Your task to perform on an android device: Open battery settings Image 0: 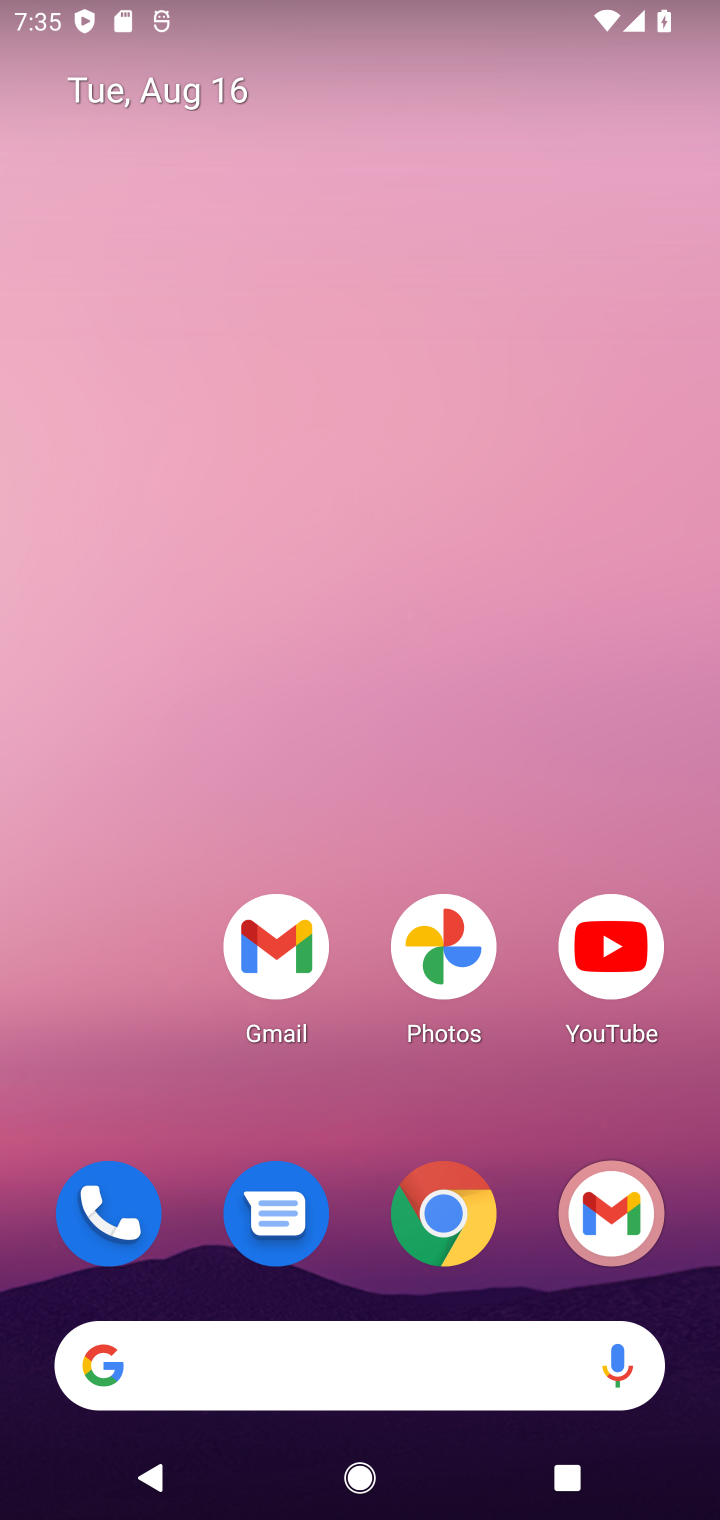
Step 0: drag from (345, 1305) to (344, 16)
Your task to perform on an android device: Open battery settings Image 1: 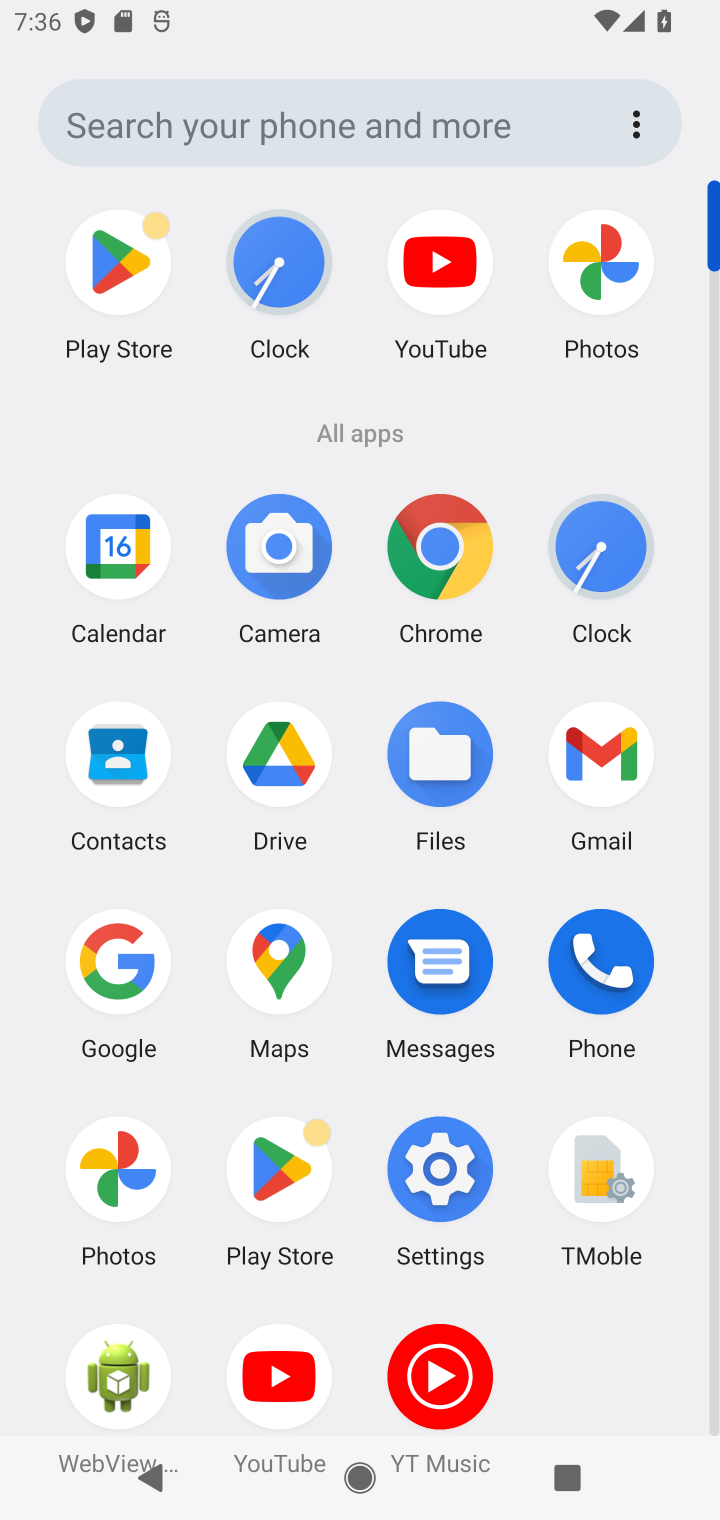
Step 1: click (462, 1172)
Your task to perform on an android device: Open battery settings Image 2: 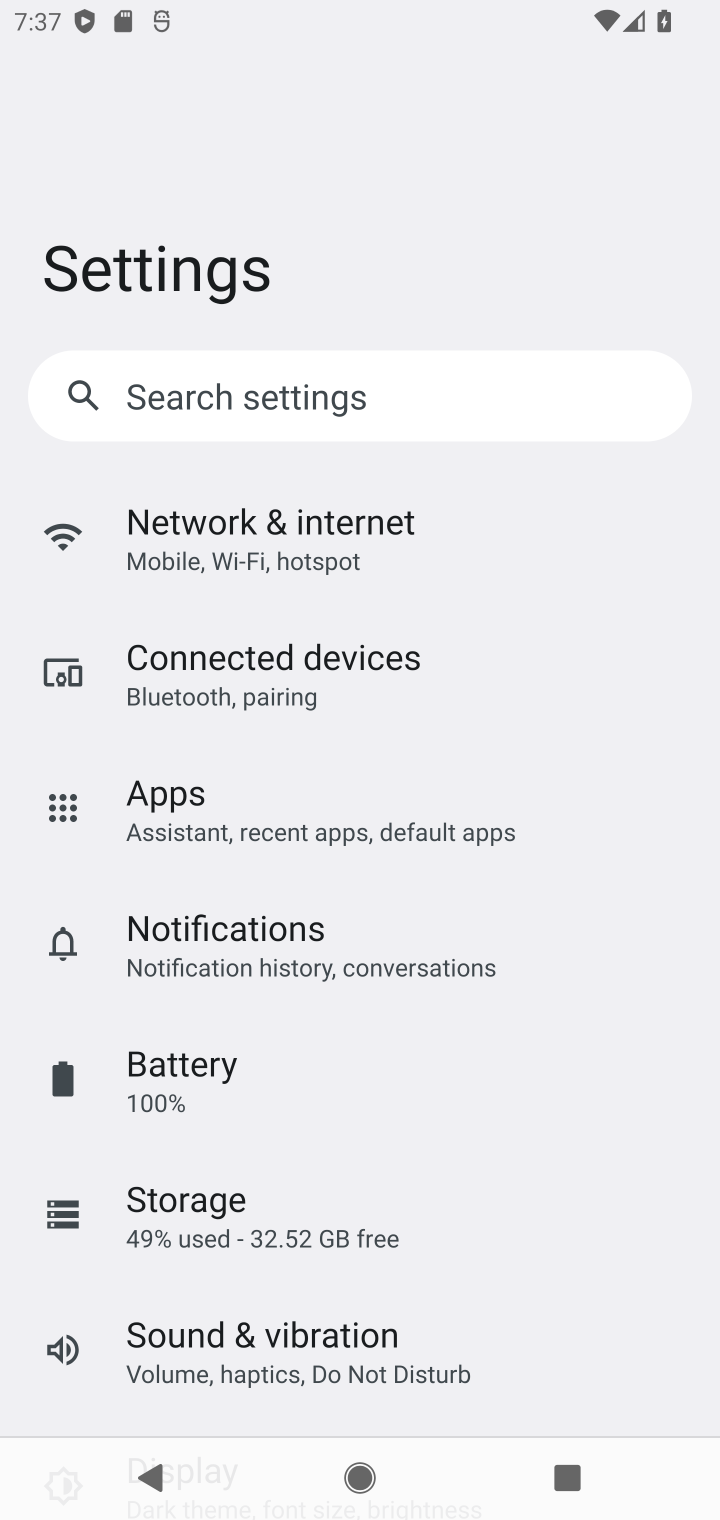
Step 2: click (226, 1030)
Your task to perform on an android device: Open battery settings Image 3: 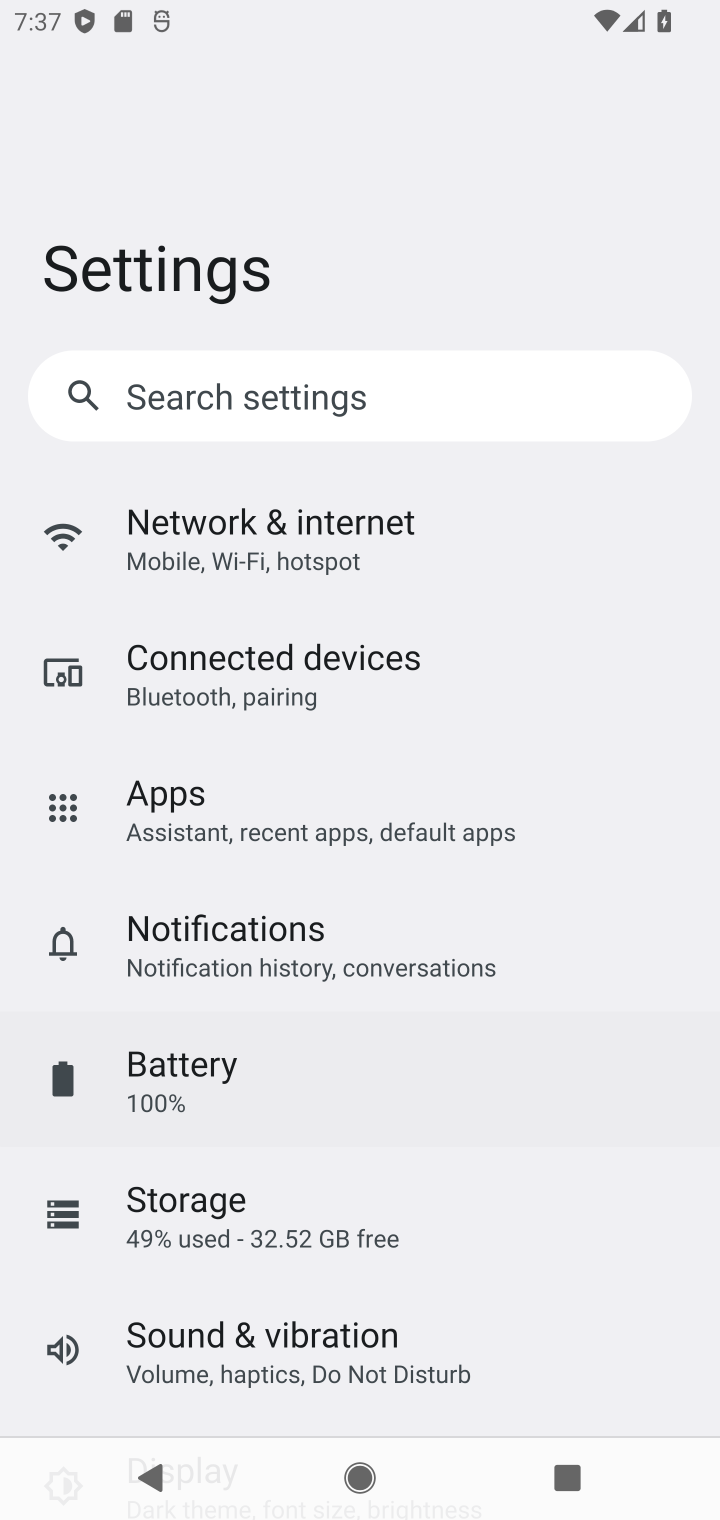
Step 3: task complete